Your task to perform on an android device: find photos in the google photos app Image 0: 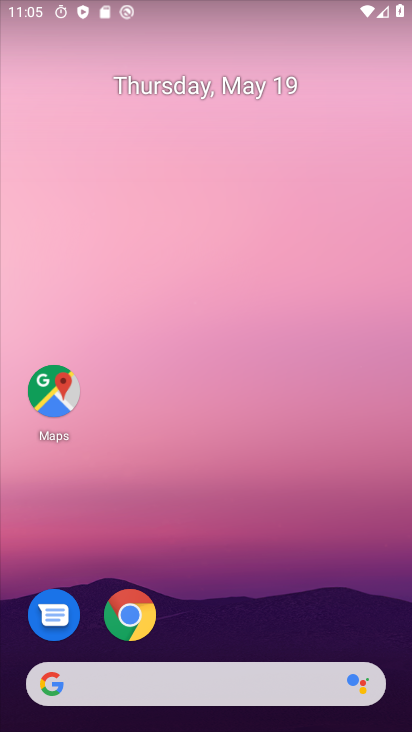
Step 0: drag from (295, 586) to (232, 18)
Your task to perform on an android device: find photos in the google photos app Image 1: 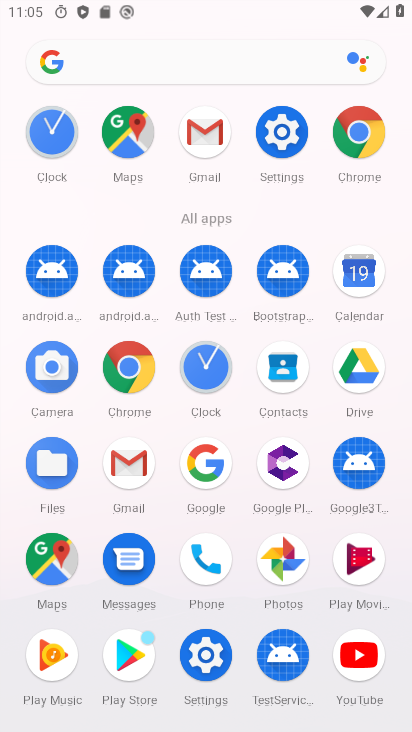
Step 1: click (277, 553)
Your task to perform on an android device: find photos in the google photos app Image 2: 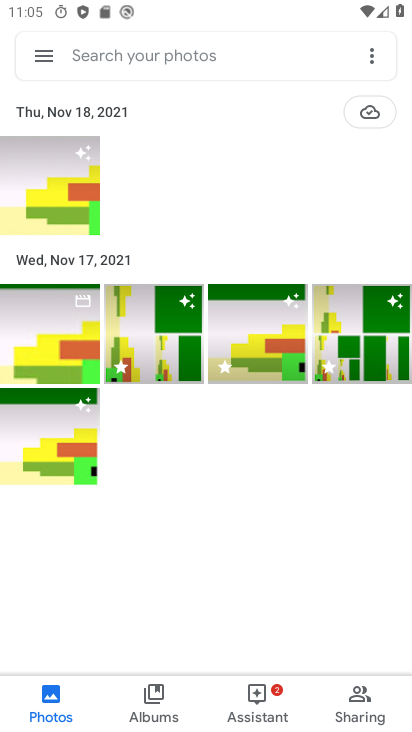
Step 2: task complete